Your task to perform on an android device: check android version Image 0: 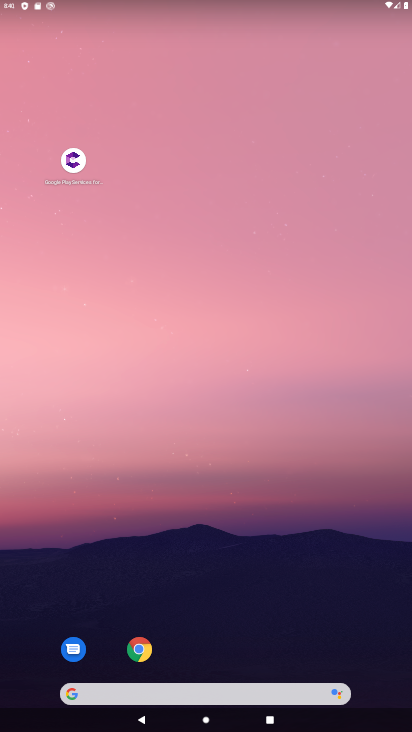
Step 0: drag from (229, 658) to (185, 7)
Your task to perform on an android device: check android version Image 1: 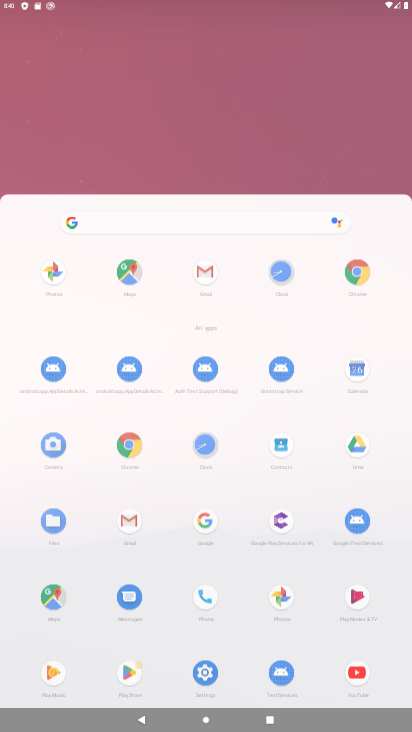
Step 1: drag from (248, 472) to (204, 16)
Your task to perform on an android device: check android version Image 2: 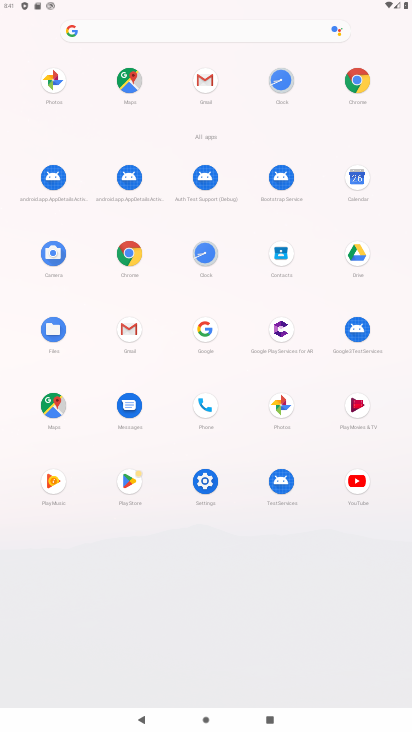
Step 2: click (202, 484)
Your task to perform on an android device: check android version Image 3: 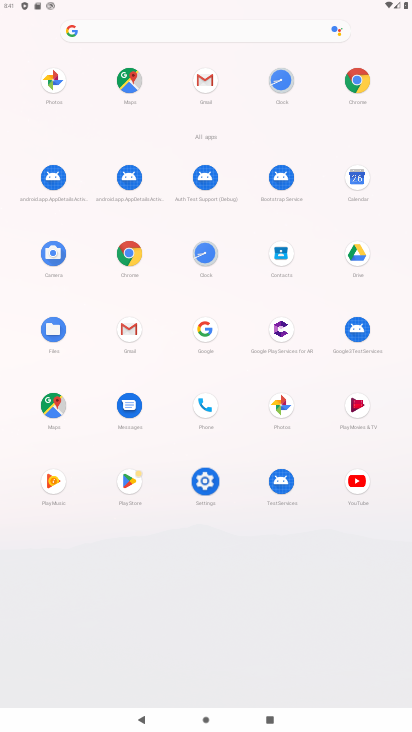
Step 3: click (213, 482)
Your task to perform on an android device: check android version Image 4: 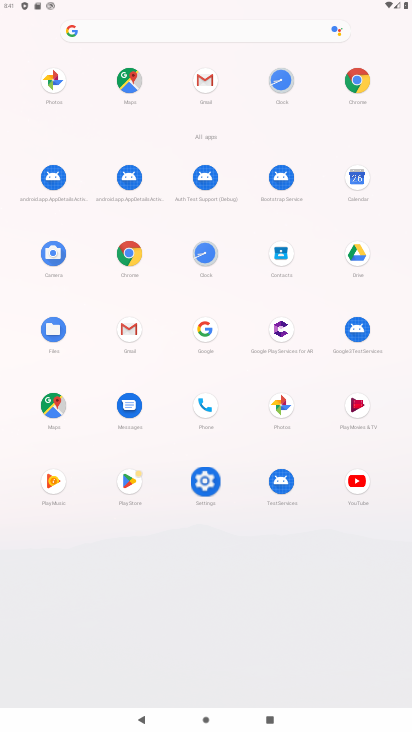
Step 4: click (213, 482)
Your task to perform on an android device: check android version Image 5: 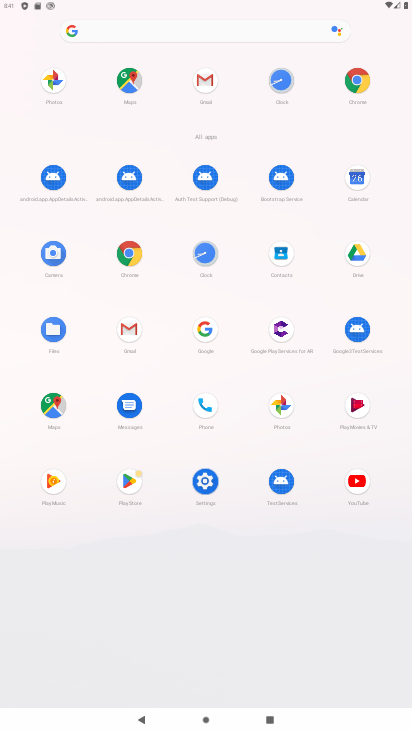
Step 5: click (211, 496)
Your task to perform on an android device: check android version Image 6: 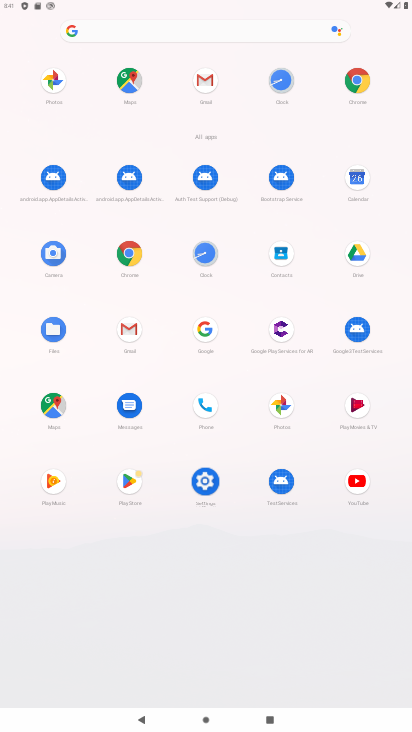
Step 6: click (206, 489)
Your task to perform on an android device: check android version Image 7: 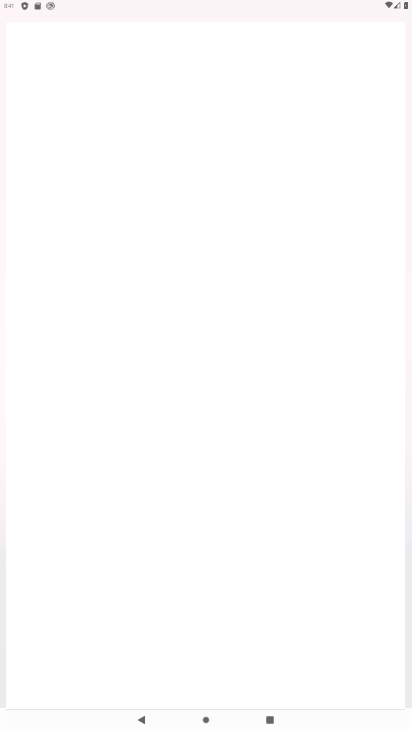
Step 7: click (203, 486)
Your task to perform on an android device: check android version Image 8: 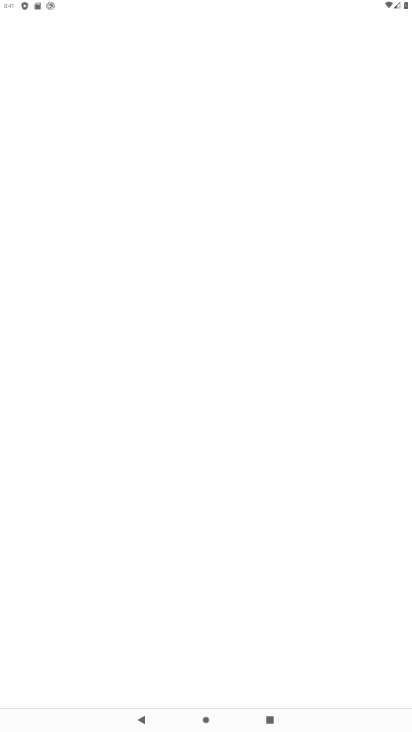
Step 8: click (200, 476)
Your task to perform on an android device: check android version Image 9: 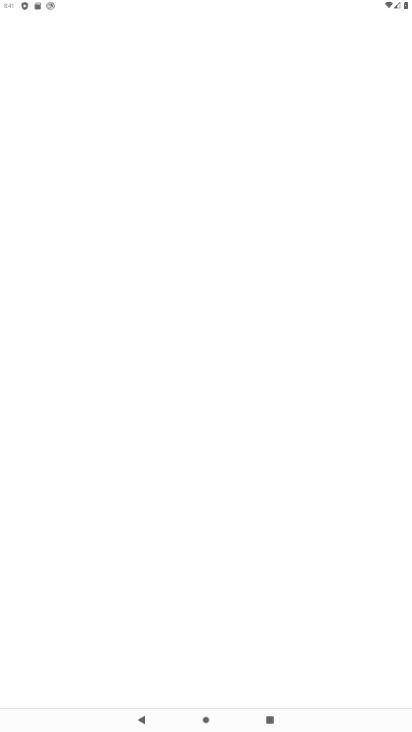
Step 9: click (200, 476)
Your task to perform on an android device: check android version Image 10: 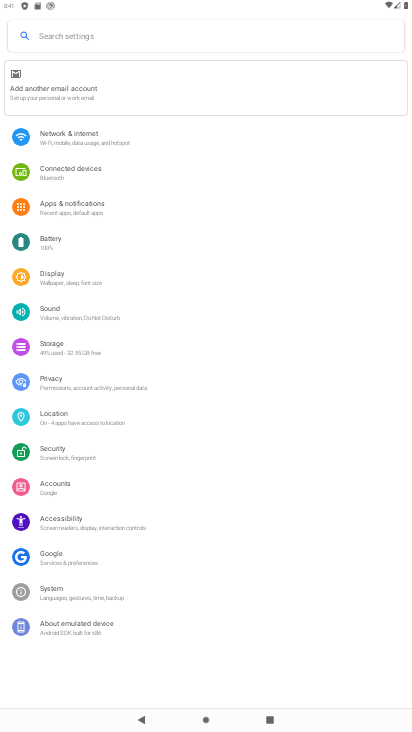
Step 10: click (51, 622)
Your task to perform on an android device: check android version Image 11: 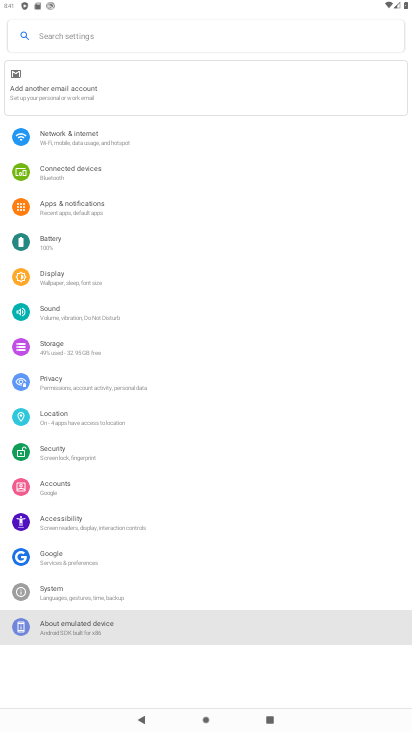
Step 11: click (52, 622)
Your task to perform on an android device: check android version Image 12: 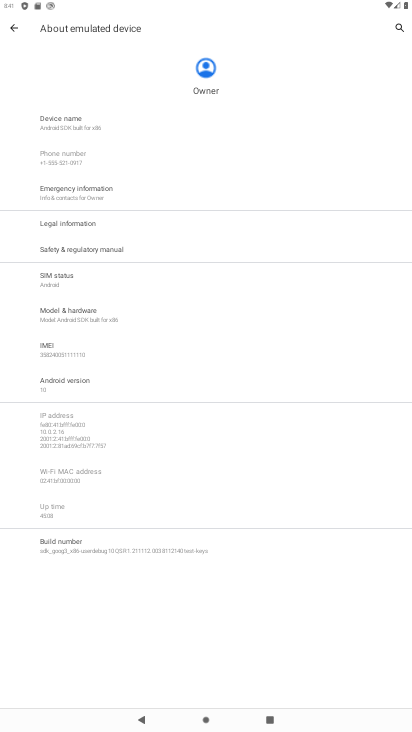
Step 12: click (67, 393)
Your task to perform on an android device: check android version Image 13: 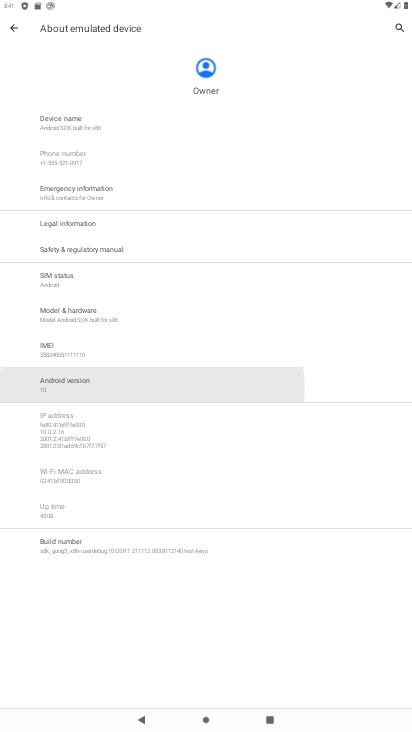
Step 13: click (68, 392)
Your task to perform on an android device: check android version Image 14: 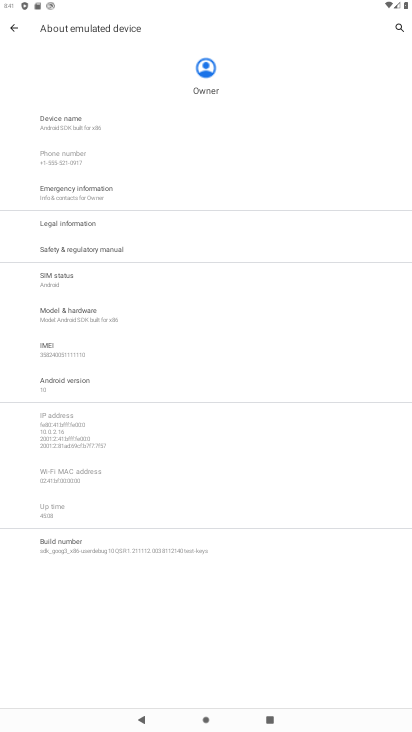
Step 14: click (72, 386)
Your task to perform on an android device: check android version Image 15: 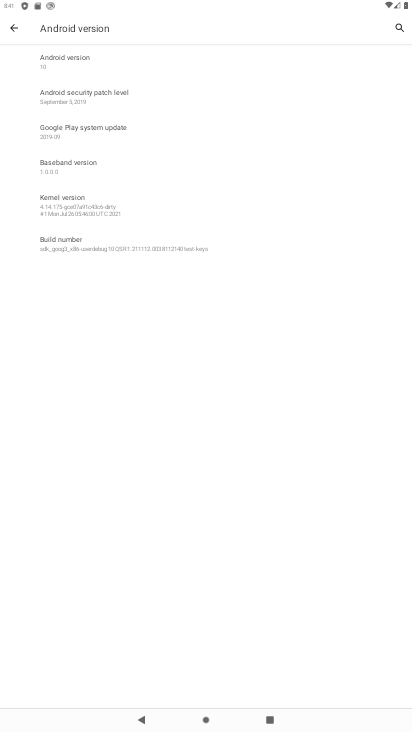
Step 15: task complete